Your task to perform on an android device: Open Yahoo.com Image 0: 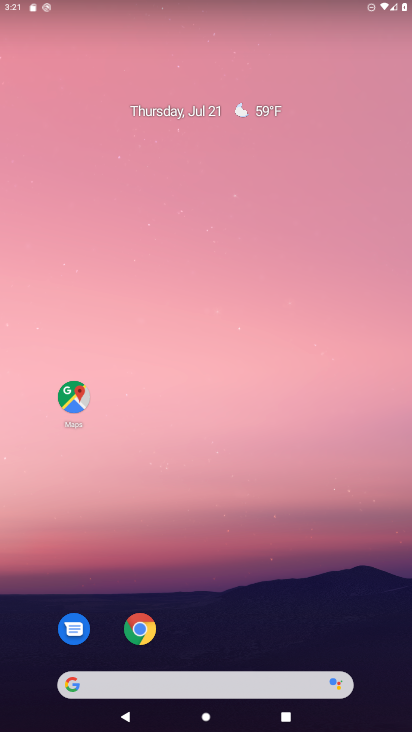
Step 0: click (142, 629)
Your task to perform on an android device: Open Yahoo.com Image 1: 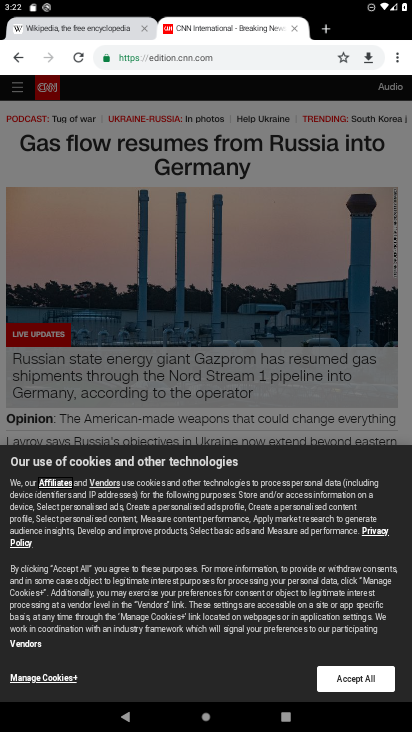
Step 1: click (398, 59)
Your task to perform on an android device: Open Yahoo.com Image 2: 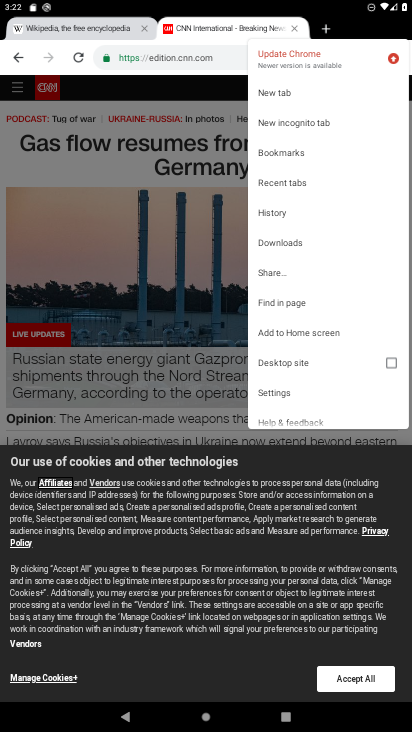
Step 2: click (274, 94)
Your task to perform on an android device: Open Yahoo.com Image 3: 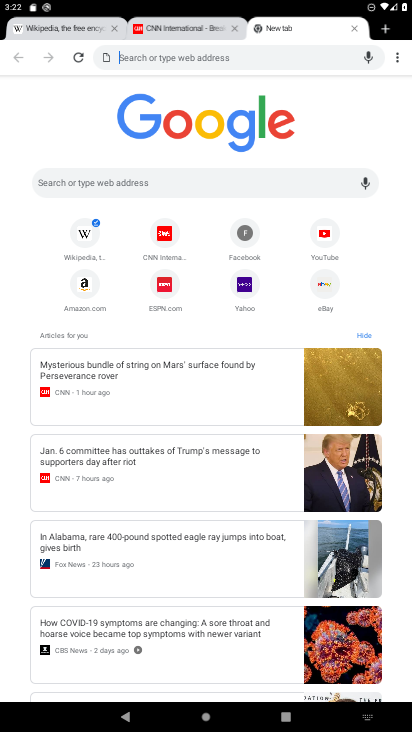
Step 3: click (242, 288)
Your task to perform on an android device: Open Yahoo.com Image 4: 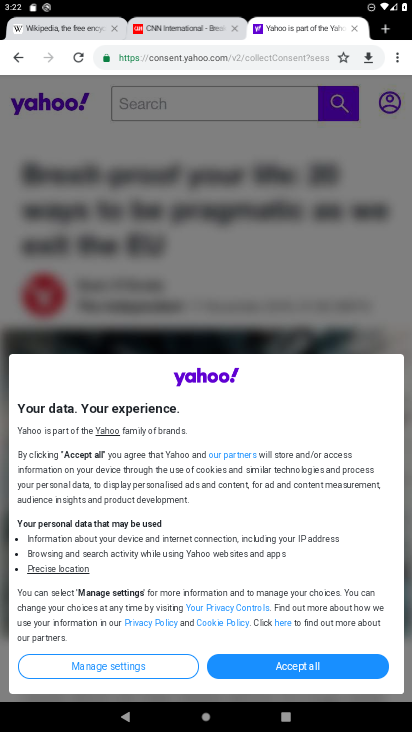
Step 4: task complete